Your task to perform on an android device: empty trash in google photos Image 0: 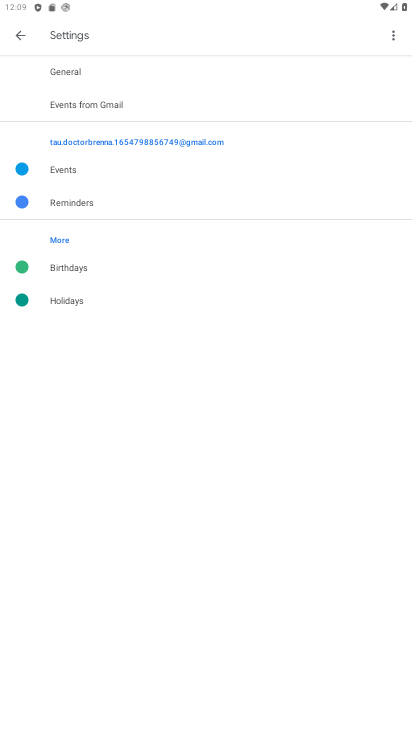
Step 0: press home button
Your task to perform on an android device: empty trash in google photos Image 1: 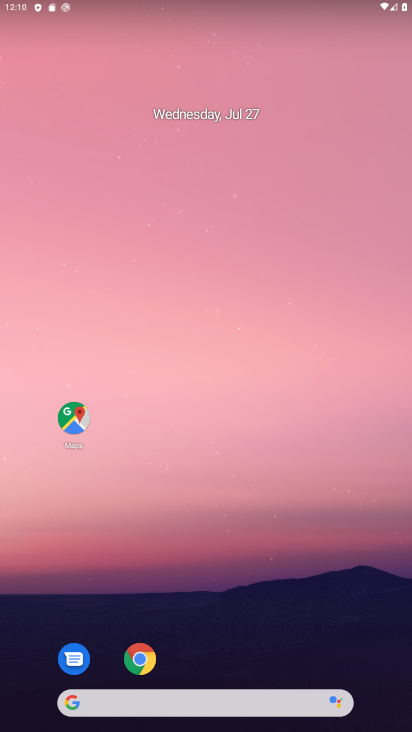
Step 1: drag from (275, 652) to (339, 32)
Your task to perform on an android device: empty trash in google photos Image 2: 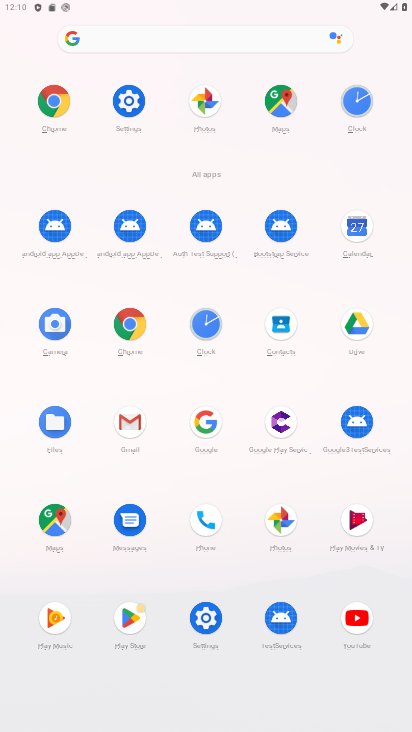
Step 2: click (286, 529)
Your task to perform on an android device: empty trash in google photos Image 3: 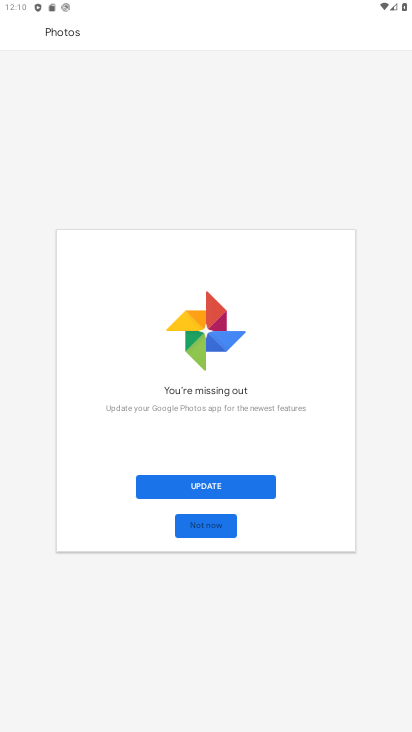
Step 3: click (233, 500)
Your task to perform on an android device: empty trash in google photos Image 4: 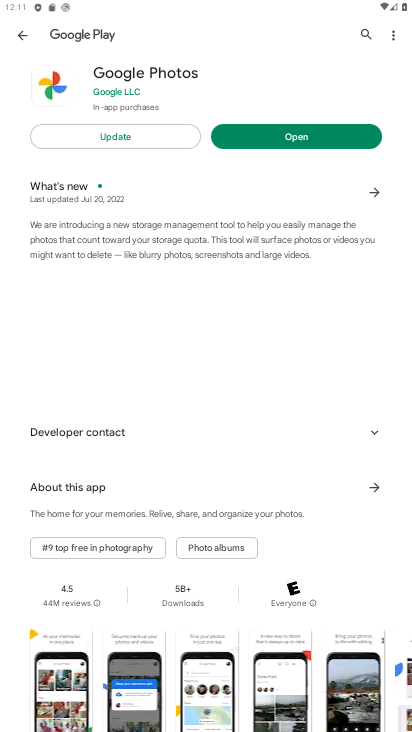
Step 4: click (147, 138)
Your task to perform on an android device: empty trash in google photos Image 5: 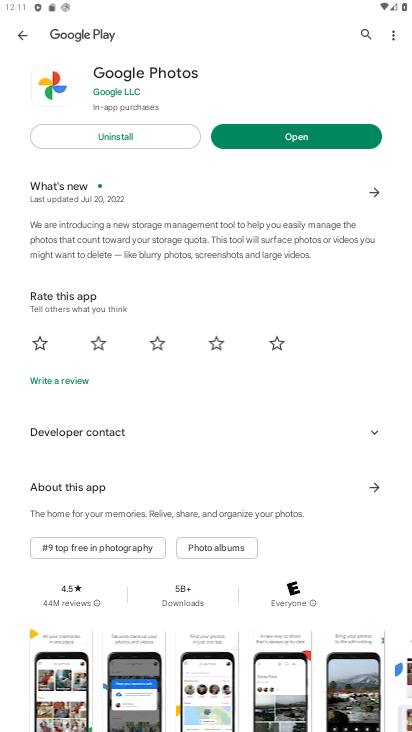
Step 5: click (274, 136)
Your task to perform on an android device: empty trash in google photos Image 6: 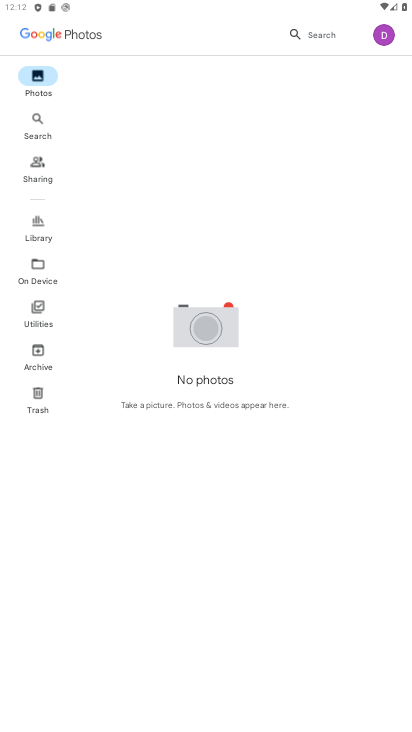
Step 6: click (44, 391)
Your task to perform on an android device: empty trash in google photos Image 7: 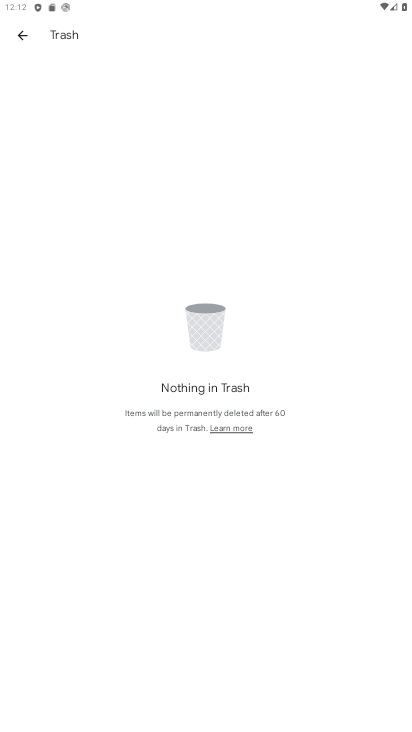
Step 7: task complete